Your task to perform on an android device: Open settings Image 0: 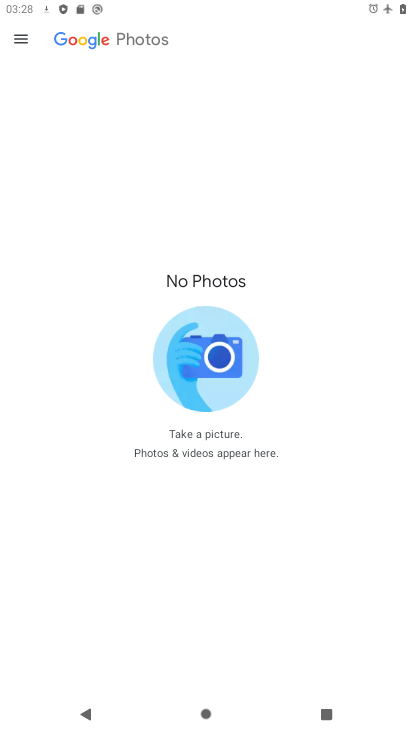
Step 0: press home button
Your task to perform on an android device: Open settings Image 1: 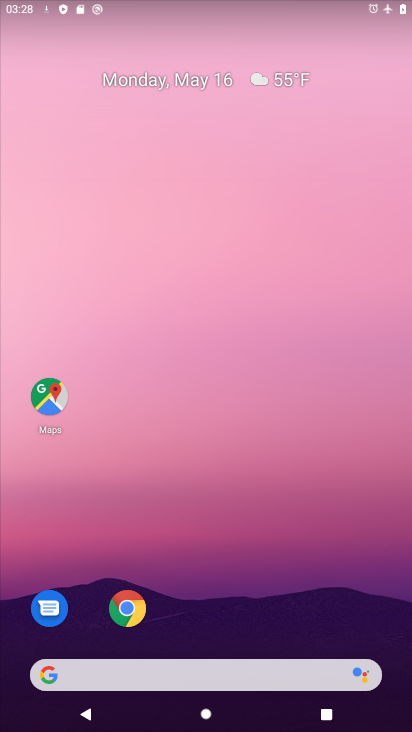
Step 1: drag from (221, 622) to (244, 252)
Your task to perform on an android device: Open settings Image 2: 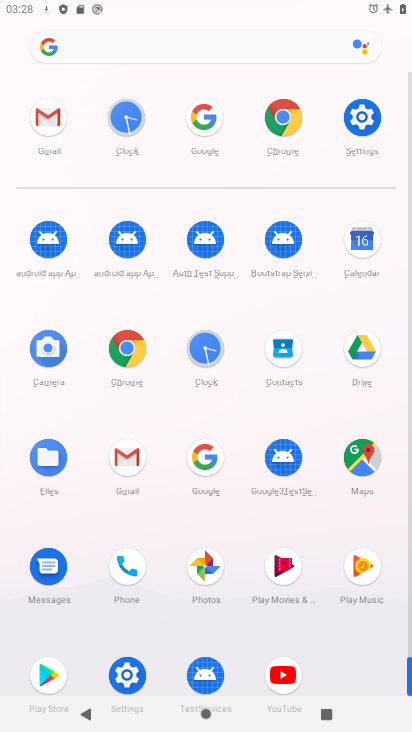
Step 2: click (366, 120)
Your task to perform on an android device: Open settings Image 3: 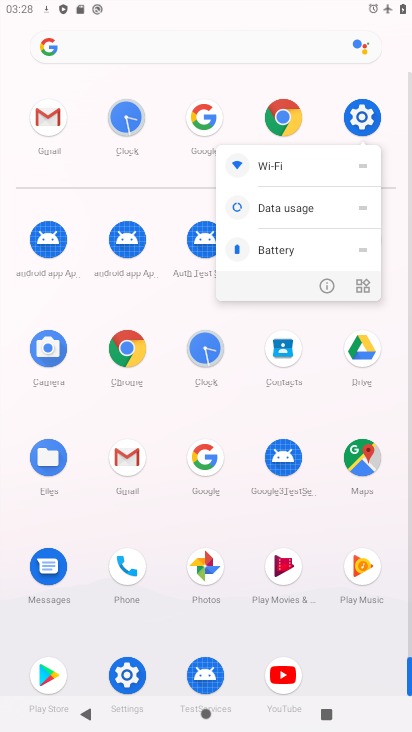
Step 3: click (363, 121)
Your task to perform on an android device: Open settings Image 4: 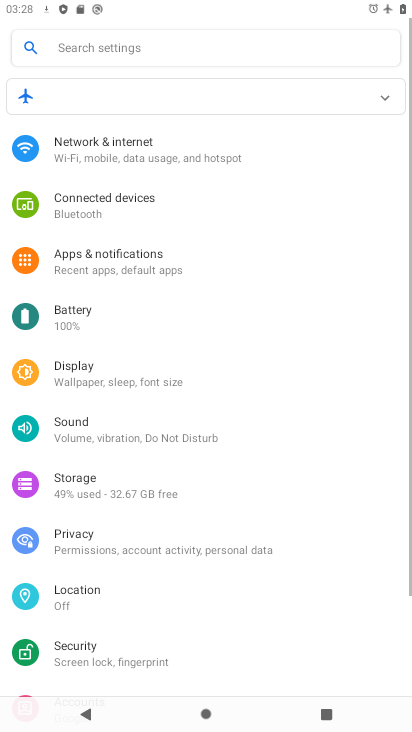
Step 4: task complete